Your task to perform on an android device: Open calendar and show me the third week of next month Image 0: 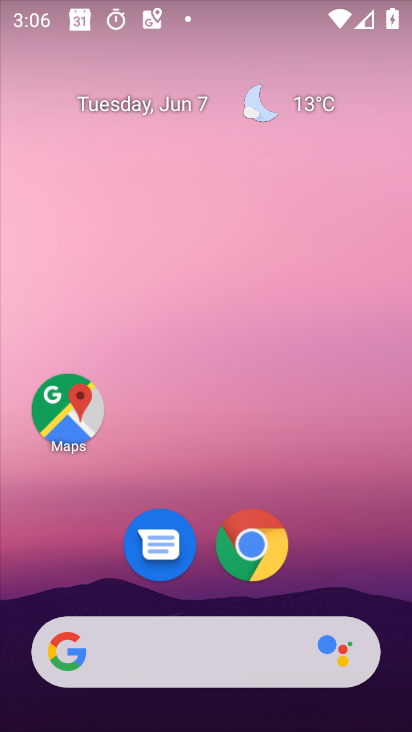
Step 0: drag from (351, 578) to (249, 7)
Your task to perform on an android device: Open calendar and show me the third week of next month Image 1: 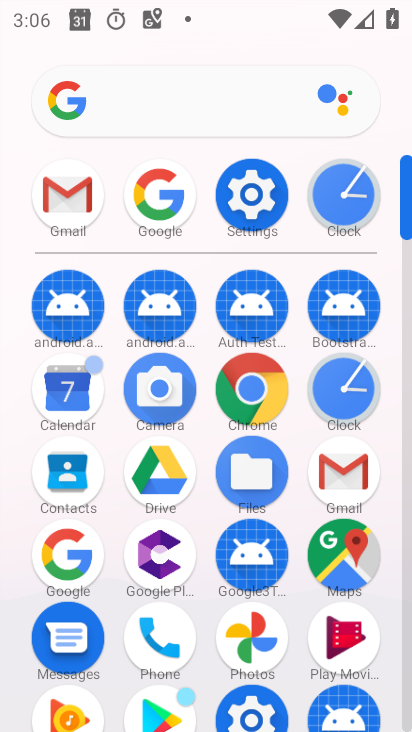
Step 1: click (75, 387)
Your task to perform on an android device: Open calendar and show me the third week of next month Image 2: 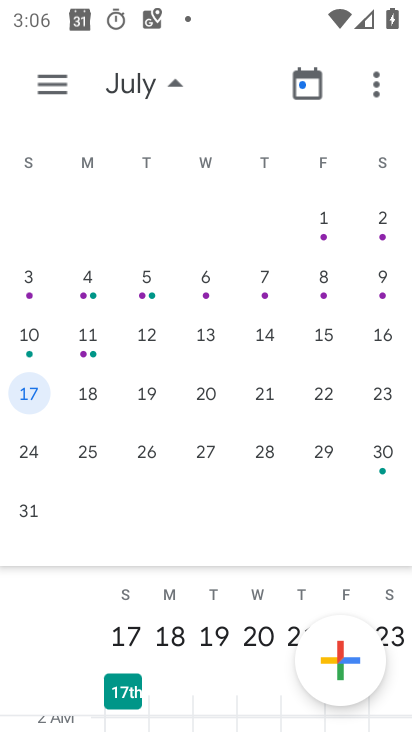
Step 2: task complete